Your task to perform on an android device: Do I have any events this weekend? Image 0: 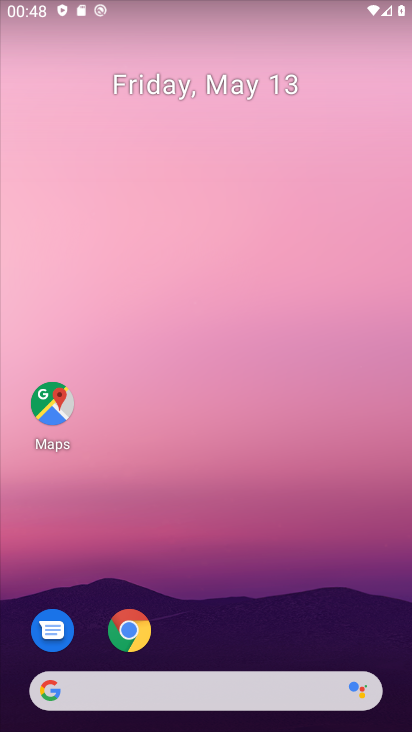
Step 0: drag from (251, 713) to (257, 255)
Your task to perform on an android device: Do I have any events this weekend? Image 1: 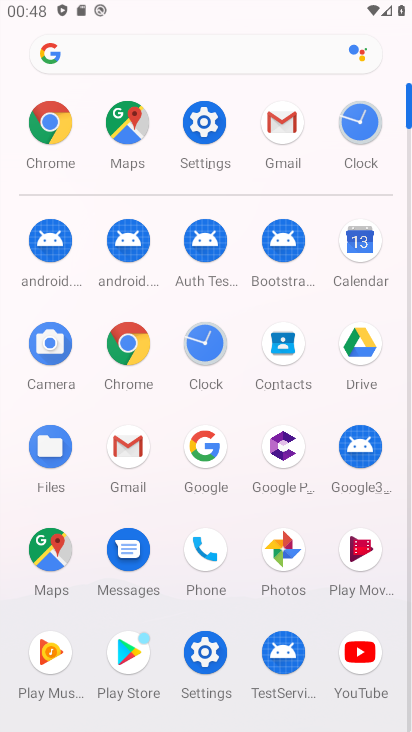
Step 1: click (345, 243)
Your task to perform on an android device: Do I have any events this weekend? Image 2: 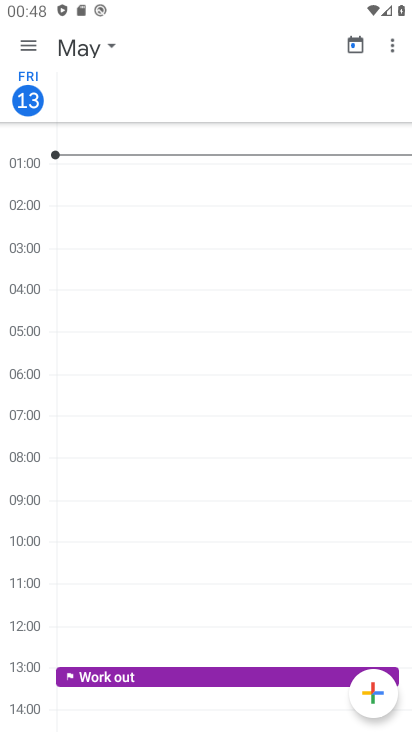
Step 2: click (38, 49)
Your task to perform on an android device: Do I have any events this weekend? Image 3: 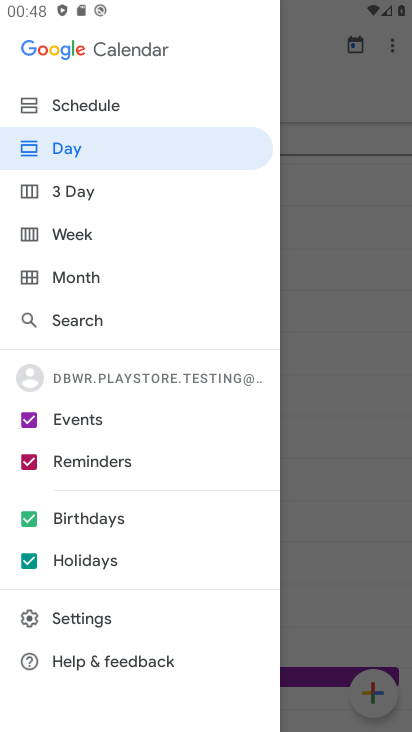
Step 3: click (103, 237)
Your task to perform on an android device: Do I have any events this weekend? Image 4: 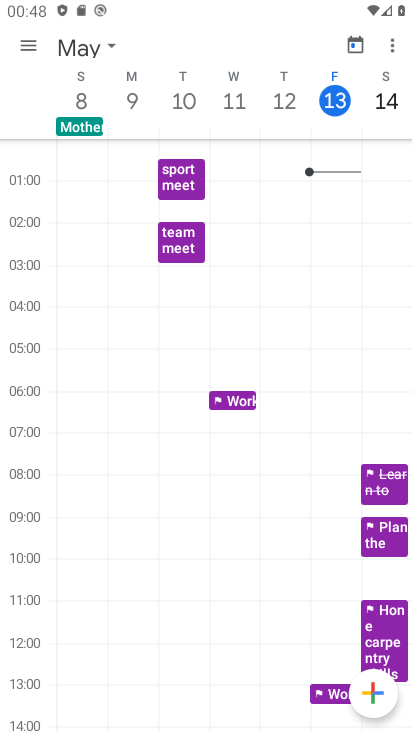
Step 4: task complete